Your task to perform on an android device: Open calendar and show me the first week of next month Image 0: 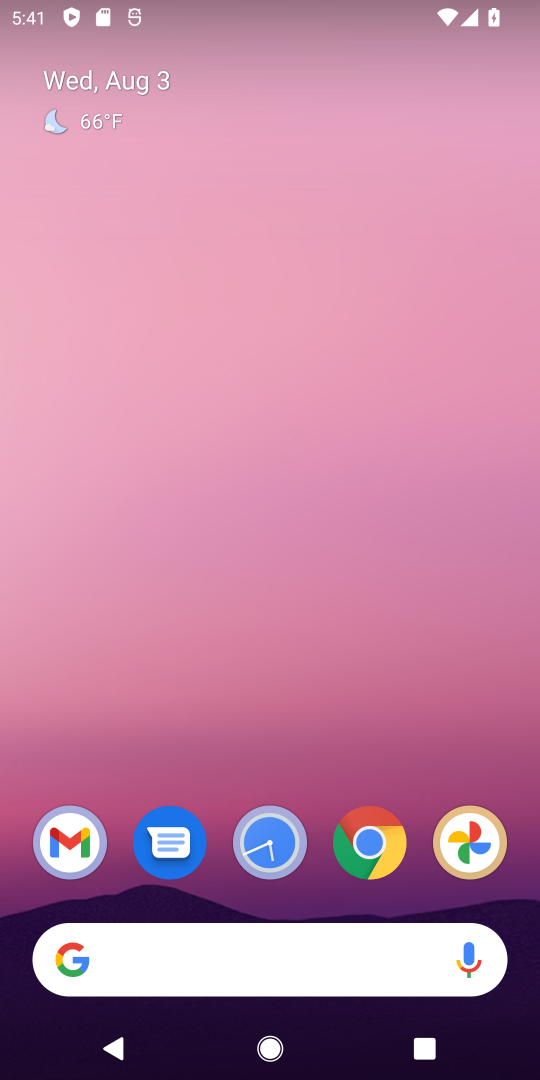
Step 0: drag from (332, 792) to (411, 3)
Your task to perform on an android device: Open calendar and show me the first week of next month Image 1: 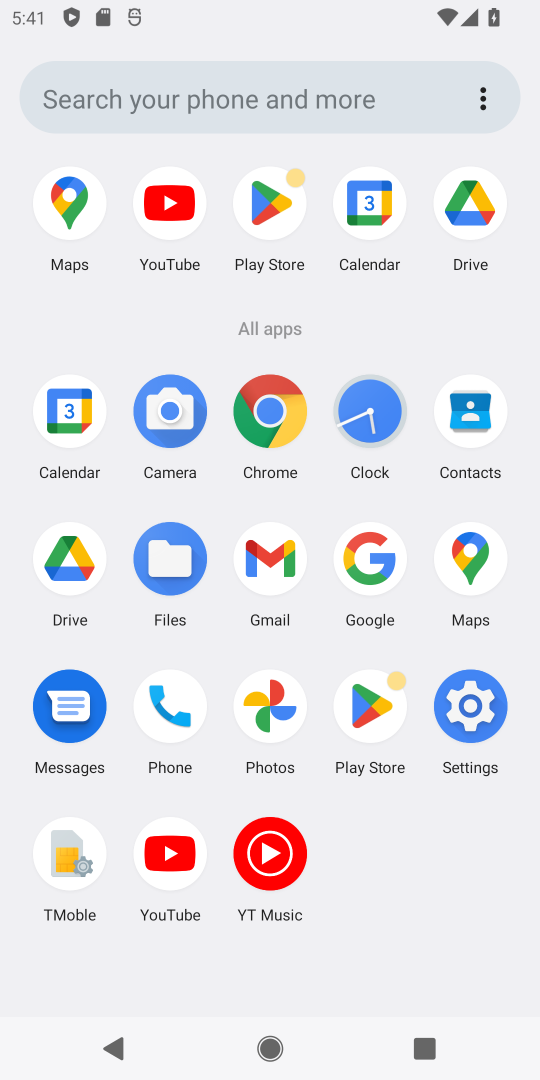
Step 1: click (80, 428)
Your task to perform on an android device: Open calendar and show me the first week of next month Image 2: 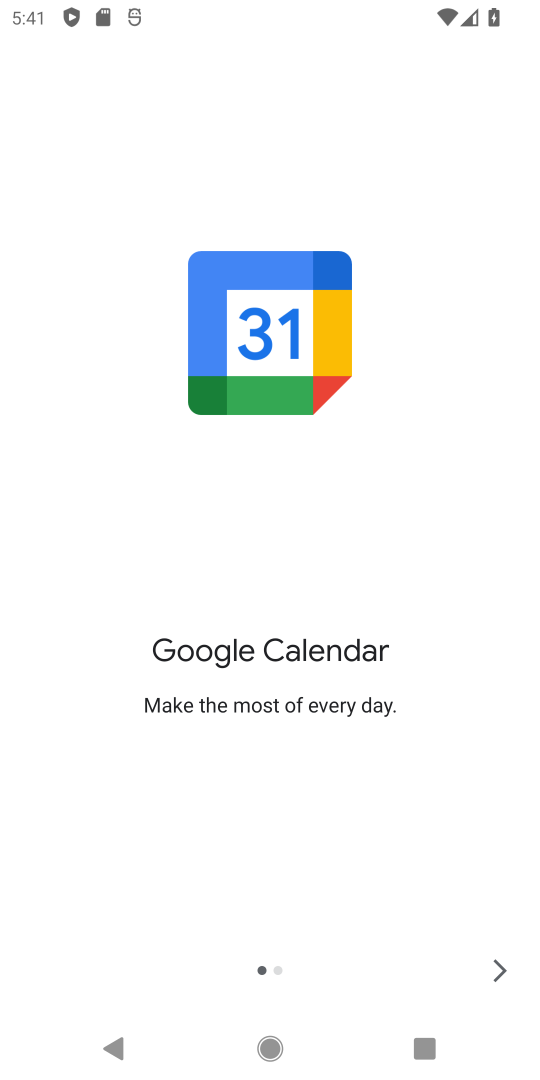
Step 2: click (497, 960)
Your task to perform on an android device: Open calendar and show me the first week of next month Image 3: 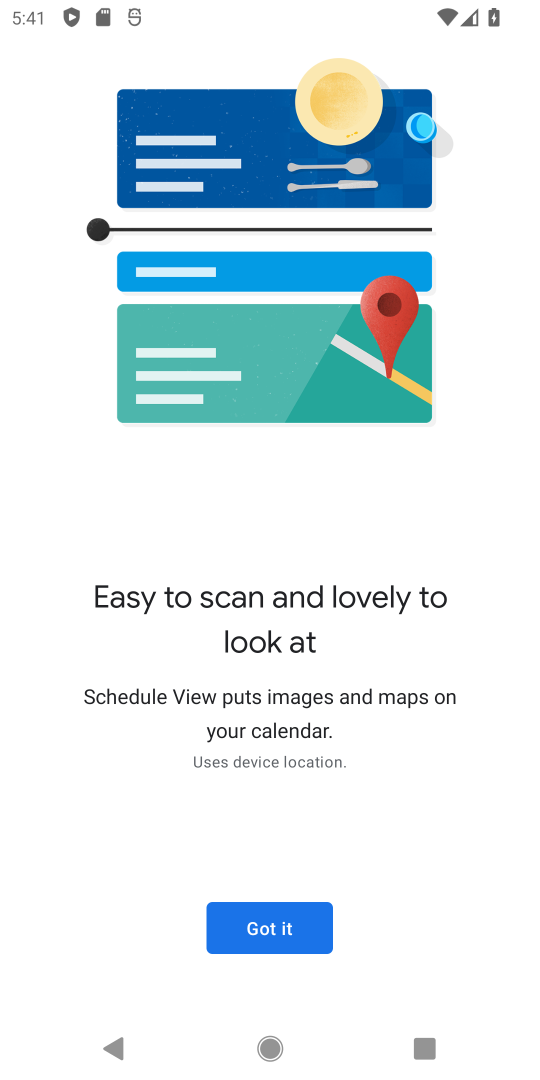
Step 3: click (278, 939)
Your task to perform on an android device: Open calendar and show me the first week of next month Image 4: 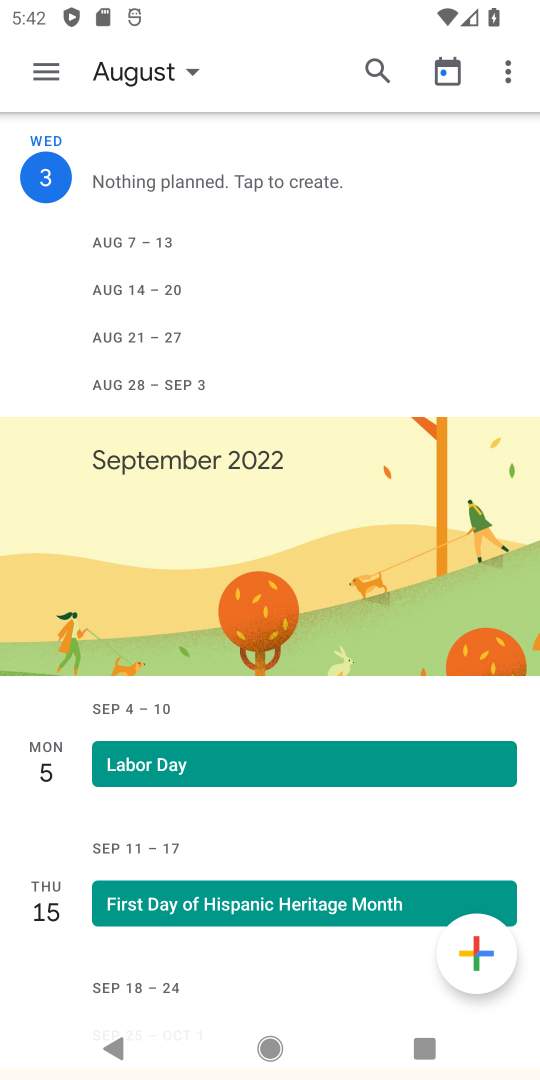
Step 4: click (147, 54)
Your task to perform on an android device: Open calendar and show me the first week of next month Image 5: 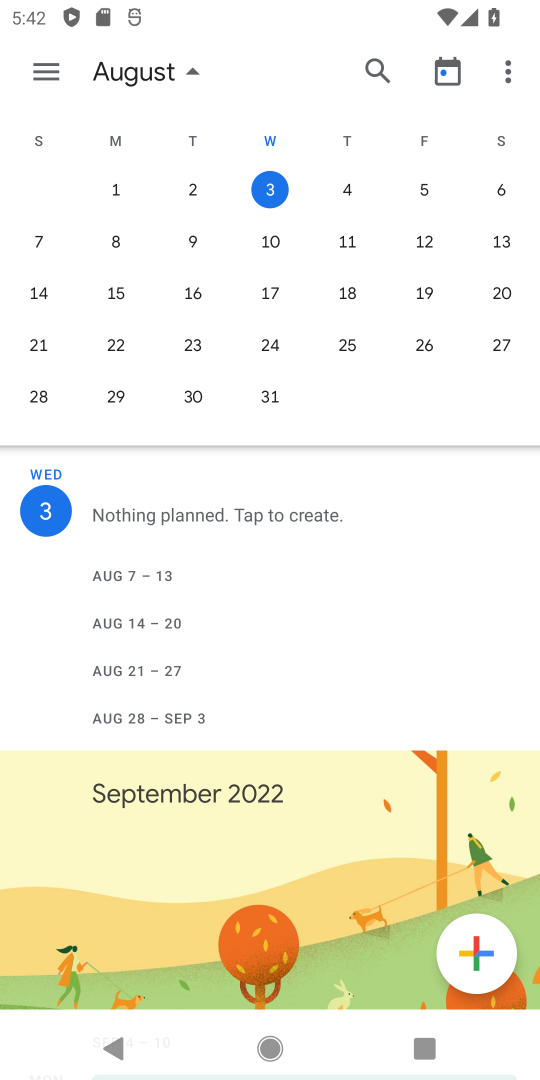
Step 5: drag from (523, 283) to (131, 253)
Your task to perform on an android device: Open calendar and show me the first week of next month Image 6: 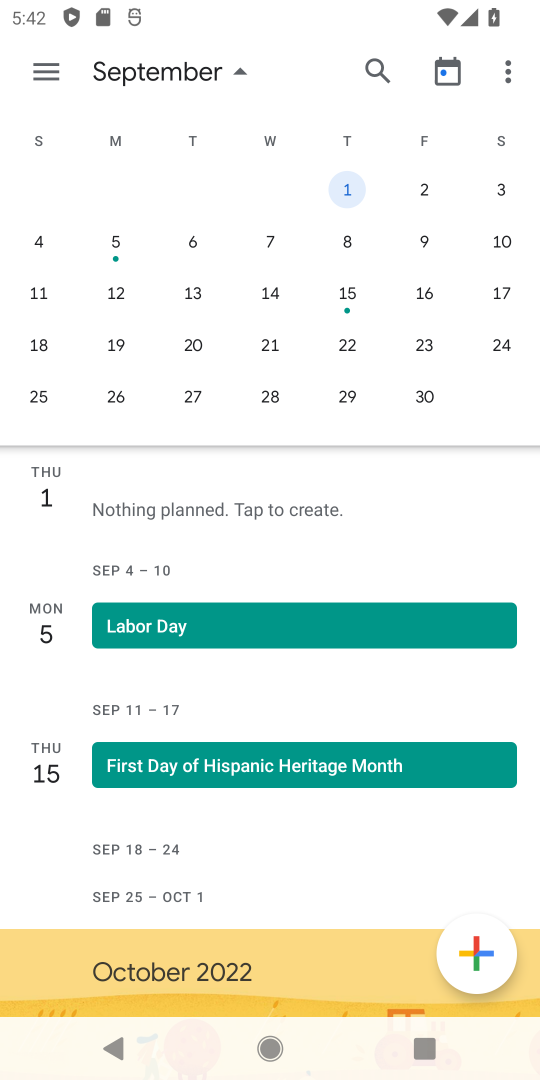
Step 6: click (349, 189)
Your task to perform on an android device: Open calendar and show me the first week of next month Image 7: 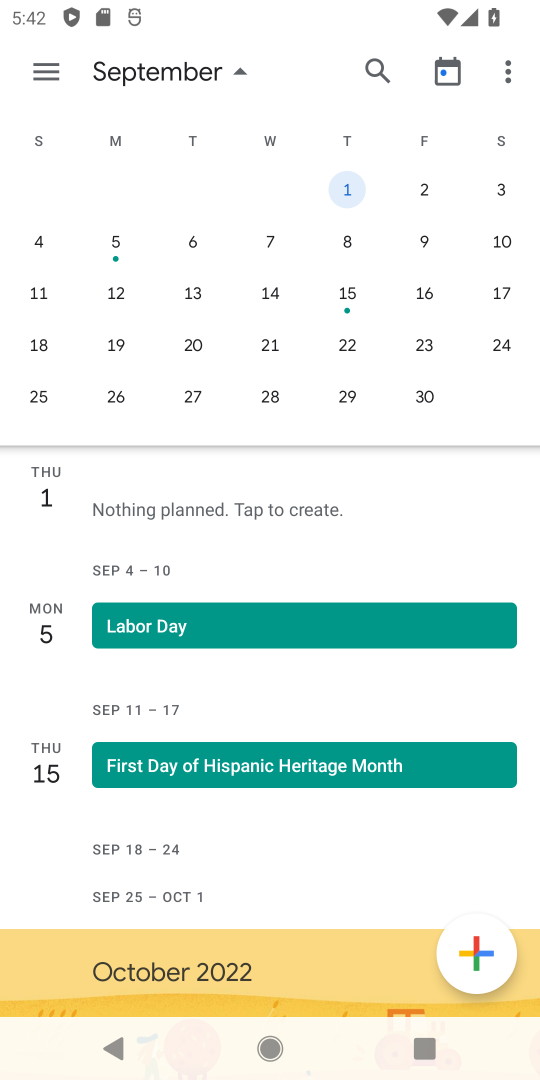
Step 7: task complete